Your task to perform on an android device: Open display settings Image 0: 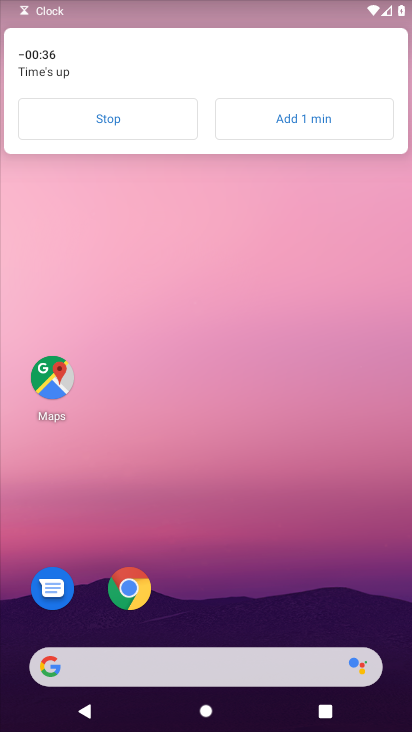
Step 0: drag from (240, 638) to (196, 248)
Your task to perform on an android device: Open display settings Image 1: 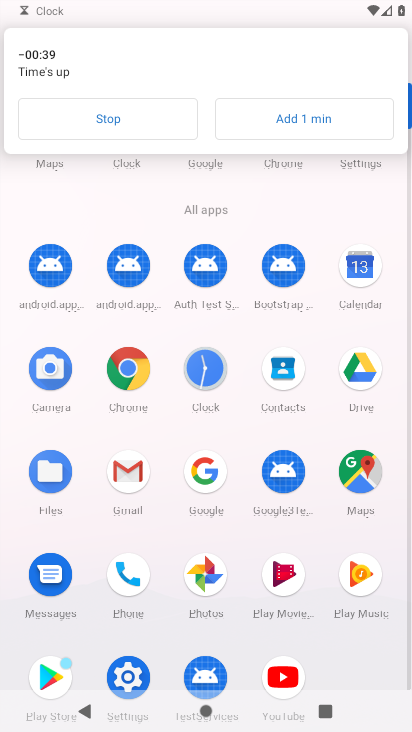
Step 1: click (132, 125)
Your task to perform on an android device: Open display settings Image 2: 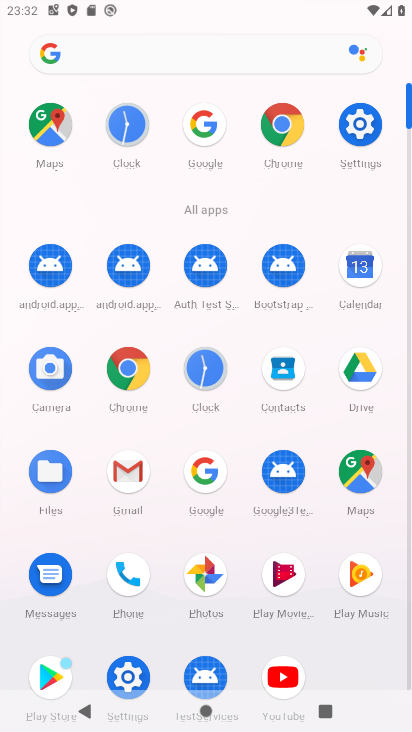
Step 2: click (126, 668)
Your task to perform on an android device: Open display settings Image 3: 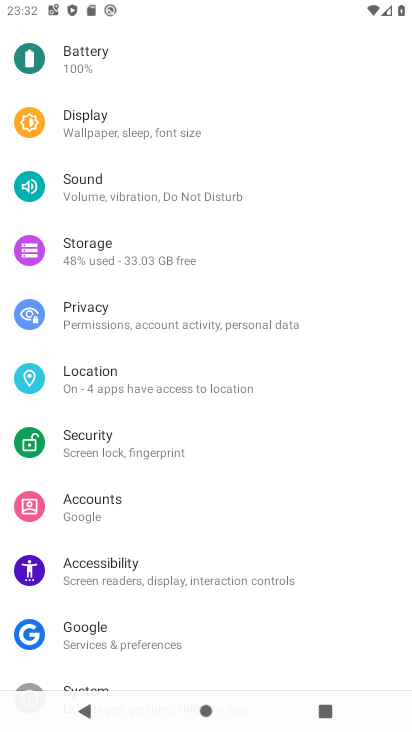
Step 3: click (84, 124)
Your task to perform on an android device: Open display settings Image 4: 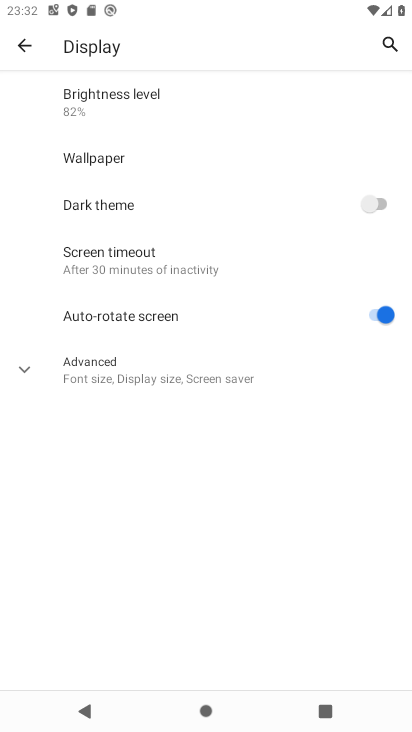
Step 4: click (145, 370)
Your task to perform on an android device: Open display settings Image 5: 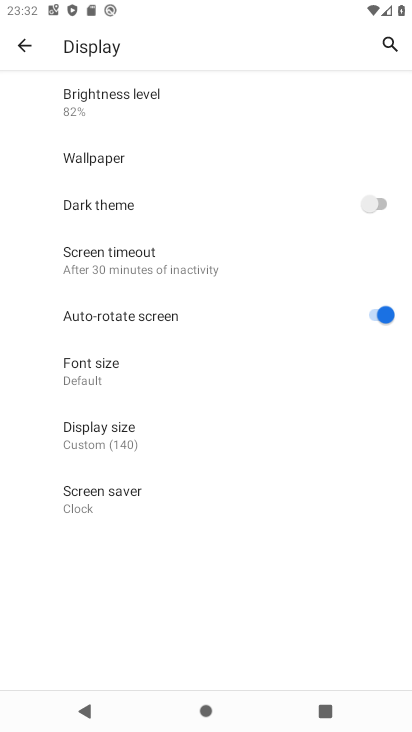
Step 5: task complete